Your task to perform on an android device: open a bookmark in the chrome app Image 0: 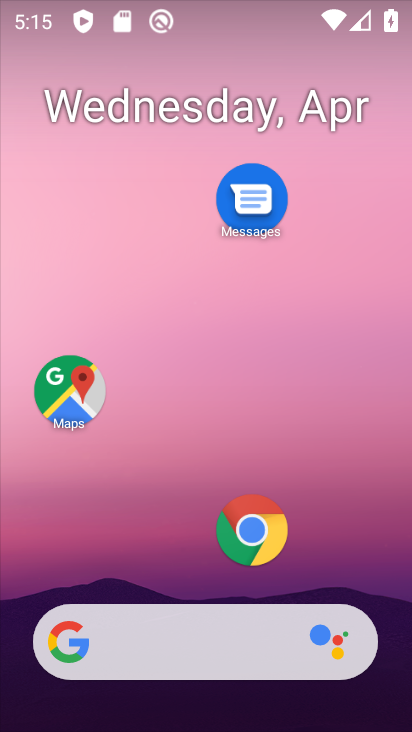
Step 0: click (253, 528)
Your task to perform on an android device: open a bookmark in the chrome app Image 1: 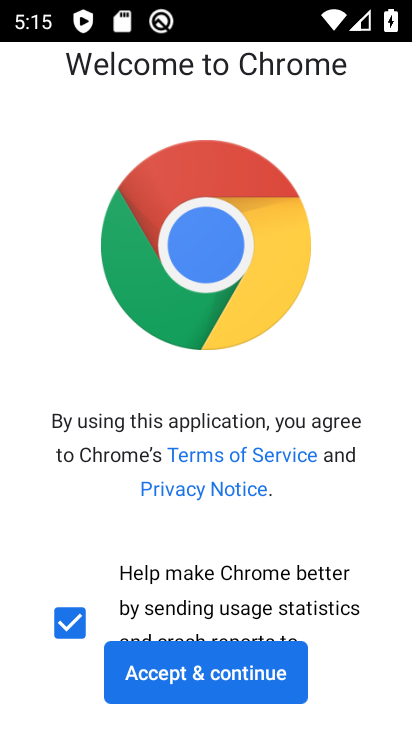
Step 1: click (210, 667)
Your task to perform on an android device: open a bookmark in the chrome app Image 2: 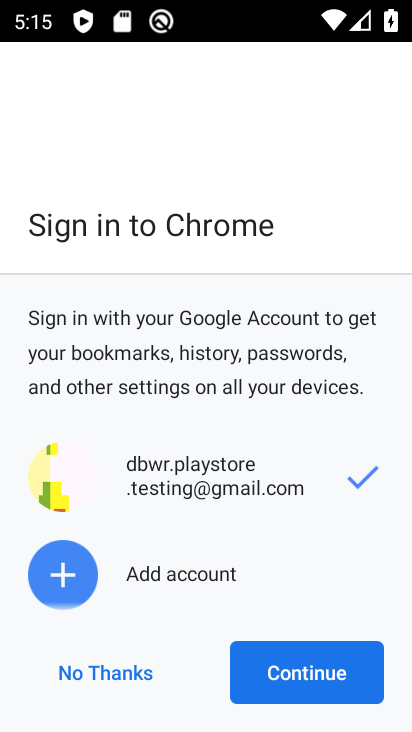
Step 2: click (256, 672)
Your task to perform on an android device: open a bookmark in the chrome app Image 3: 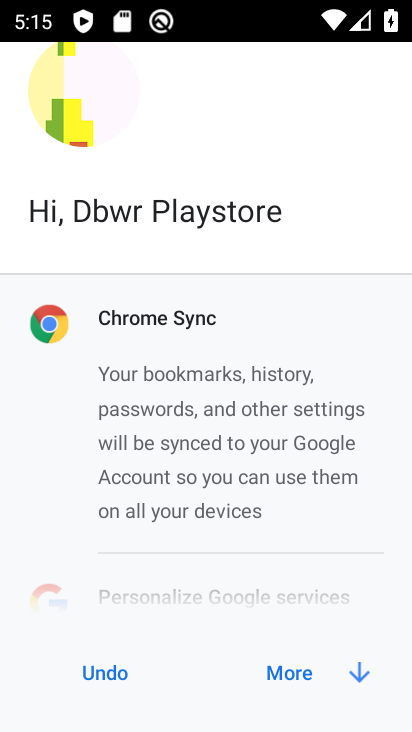
Step 3: click (280, 668)
Your task to perform on an android device: open a bookmark in the chrome app Image 4: 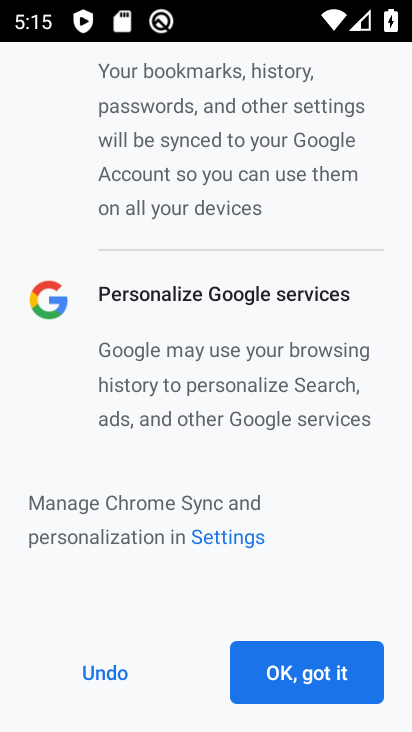
Step 4: click (280, 668)
Your task to perform on an android device: open a bookmark in the chrome app Image 5: 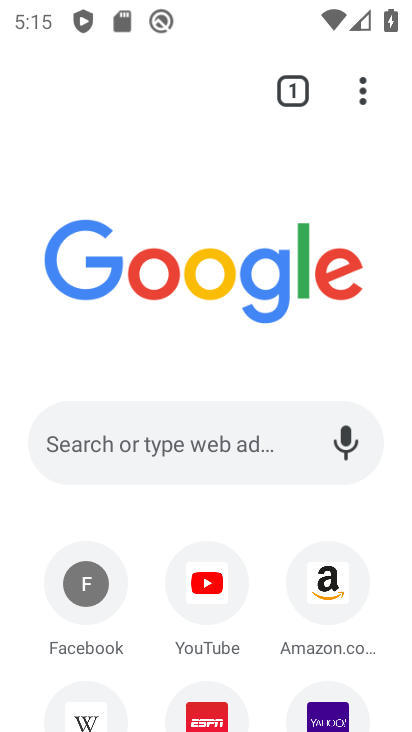
Step 5: click (363, 96)
Your task to perform on an android device: open a bookmark in the chrome app Image 6: 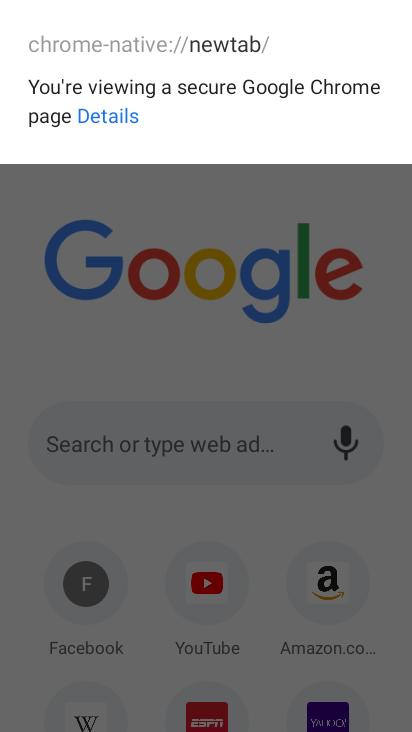
Step 6: press back button
Your task to perform on an android device: open a bookmark in the chrome app Image 7: 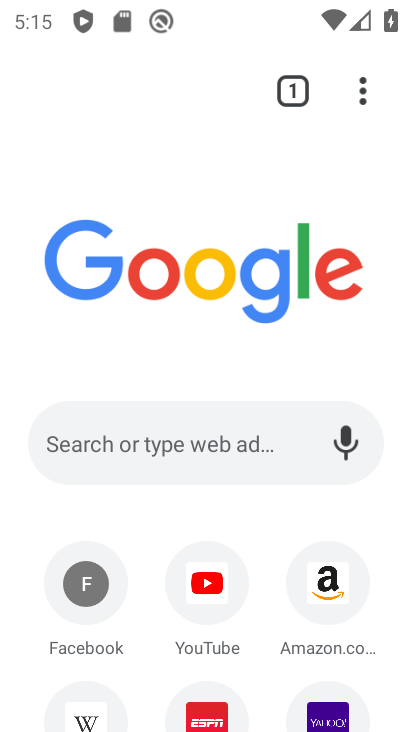
Step 7: click (366, 87)
Your task to perform on an android device: open a bookmark in the chrome app Image 8: 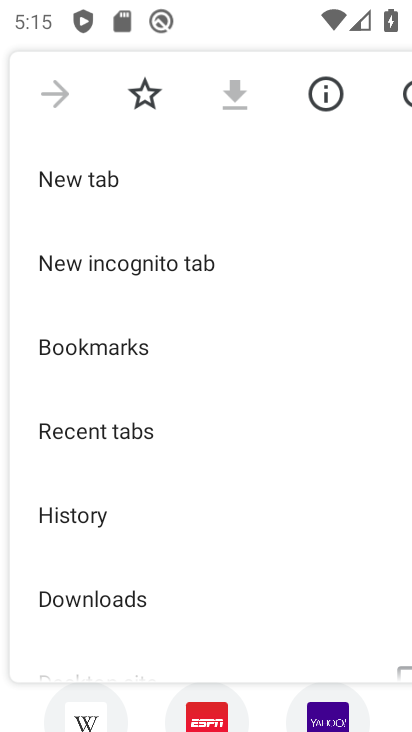
Step 8: click (135, 345)
Your task to perform on an android device: open a bookmark in the chrome app Image 9: 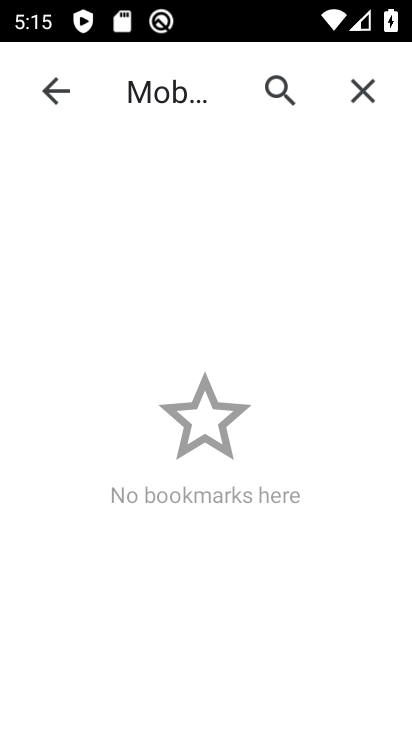
Step 9: task complete